Your task to perform on an android device: Go to Reddit.com Image 0: 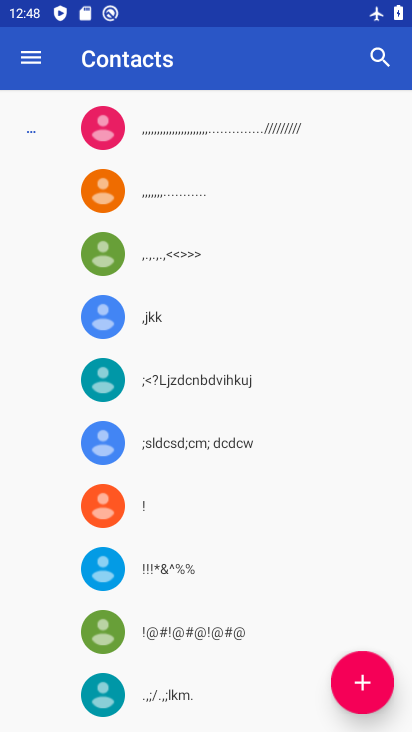
Step 0: press home button
Your task to perform on an android device: Go to Reddit.com Image 1: 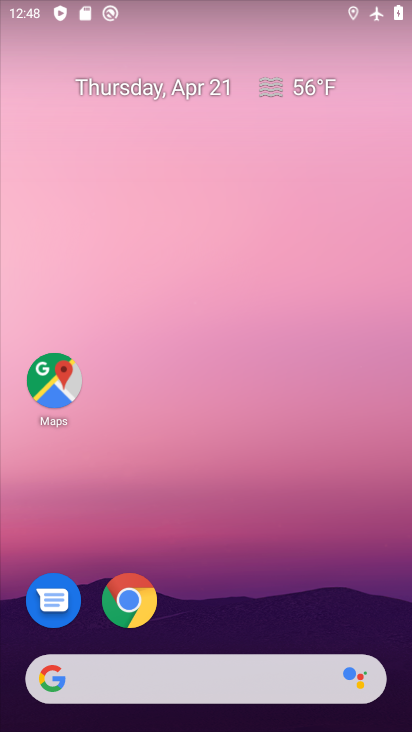
Step 1: click (119, 595)
Your task to perform on an android device: Go to Reddit.com Image 2: 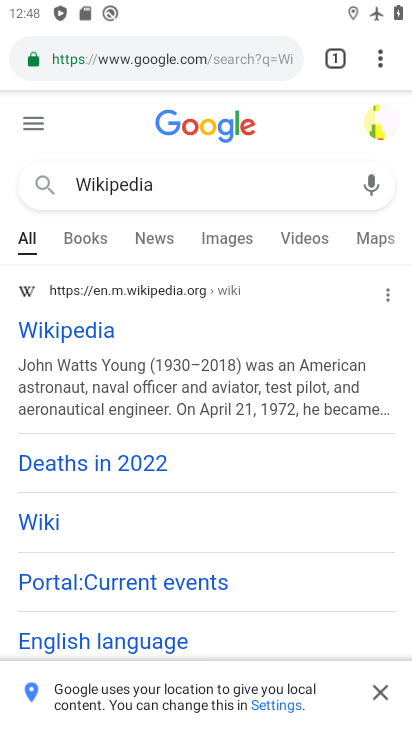
Step 2: click (327, 47)
Your task to perform on an android device: Go to Reddit.com Image 3: 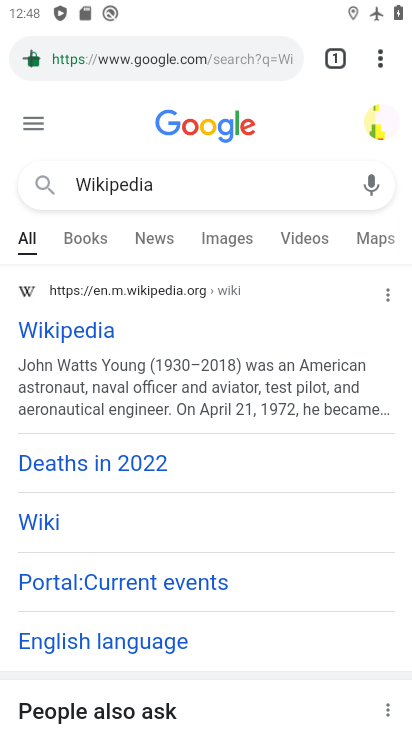
Step 3: click (292, 53)
Your task to perform on an android device: Go to Reddit.com Image 4: 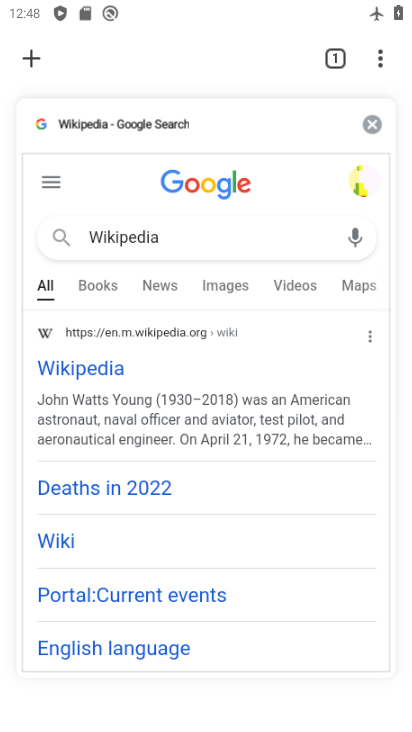
Step 4: click (317, 139)
Your task to perform on an android device: Go to Reddit.com Image 5: 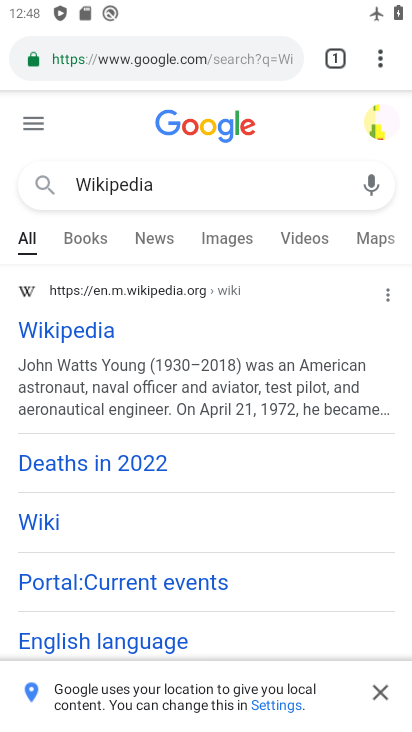
Step 5: click (291, 55)
Your task to perform on an android device: Go to Reddit.com Image 6: 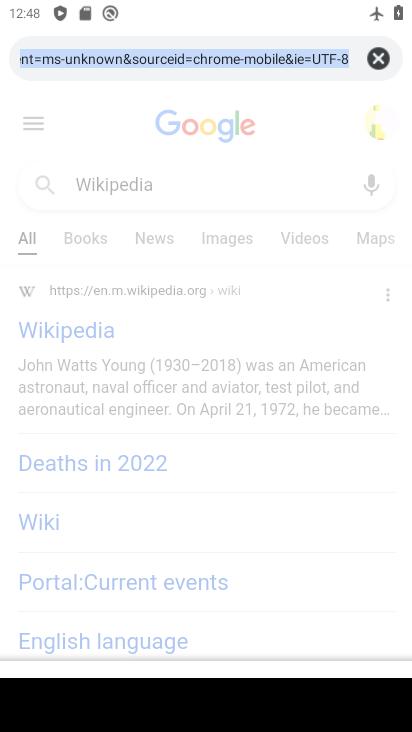
Step 6: click (378, 54)
Your task to perform on an android device: Go to Reddit.com Image 7: 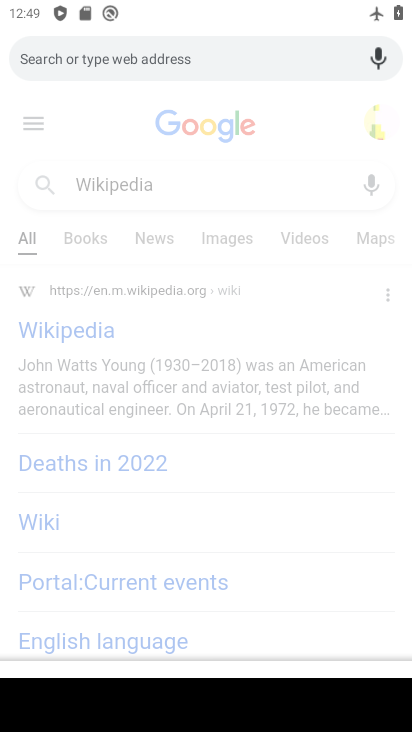
Step 7: type " Reddit.com"
Your task to perform on an android device: Go to Reddit.com Image 8: 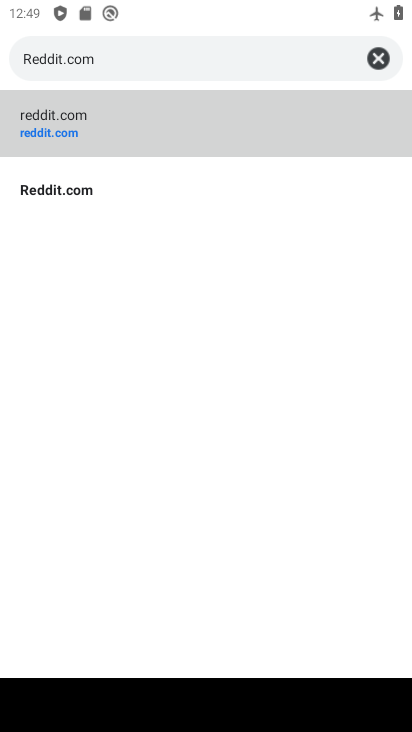
Step 8: click (201, 133)
Your task to perform on an android device: Go to Reddit.com Image 9: 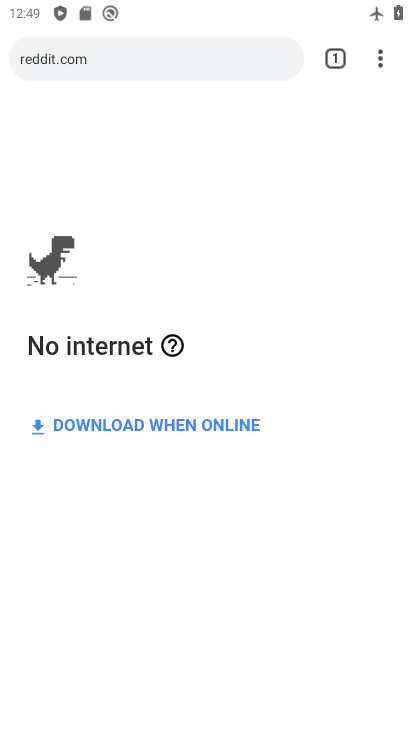
Step 9: task complete